Your task to perform on an android device: Open calendar and show me the third week of next month Image 0: 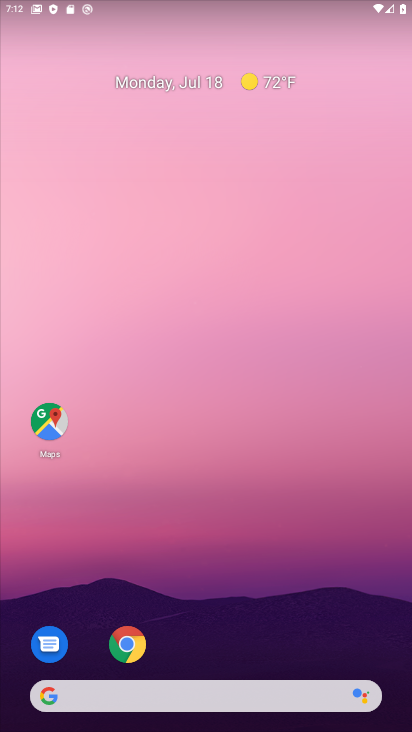
Step 0: drag from (335, 627) to (281, 82)
Your task to perform on an android device: Open calendar and show me the third week of next month Image 1: 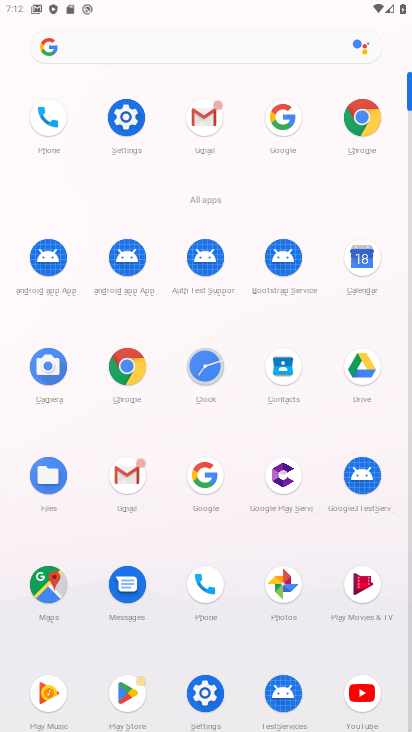
Step 1: click (366, 260)
Your task to perform on an android device: Open calendar and show me the third week of next month Image 2: 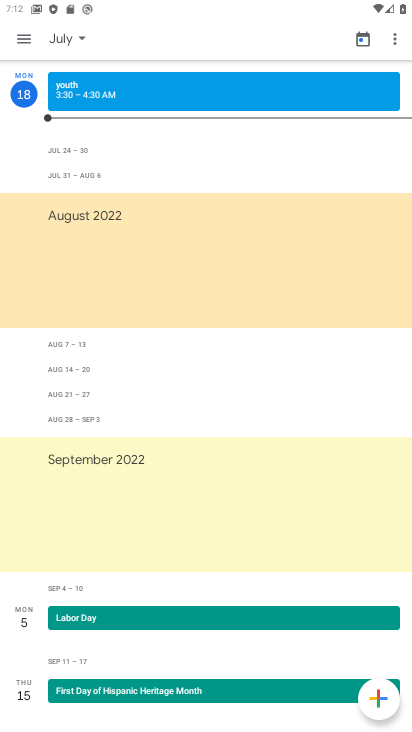
Step 2: click (55, 41)
Your task to perform on an android device: Open calendar and show me the third week of next month Image 3: 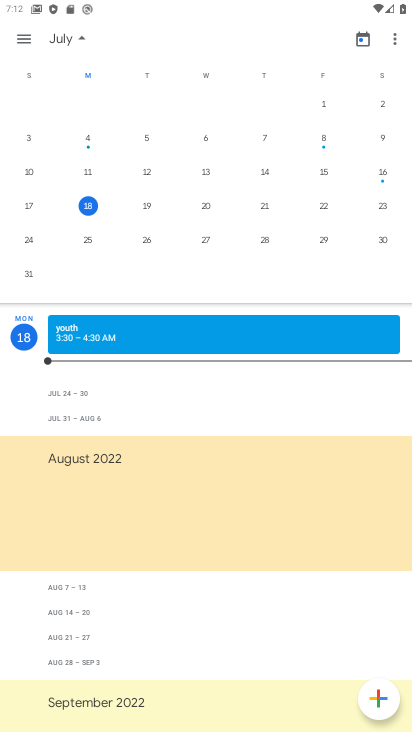
Step 3: drag from (328, 151) to (3, 166)
Your task to perform on an android device: Open calendar and show me the third week of next month Image 4: 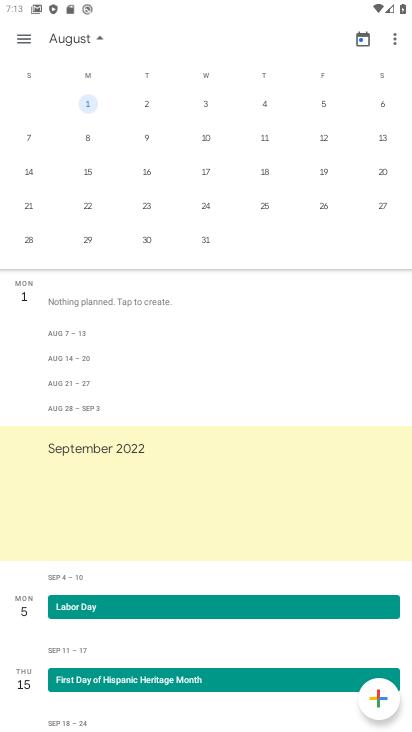
Step 4: click (29, 202)
Your task to perform on an android device: Open calendar and show me the third week of next month Image 5: 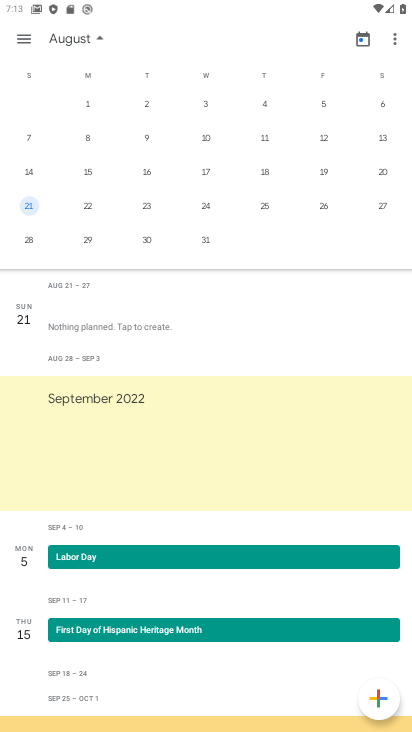
Step 5: task complete